Your task to perform on an android device: Go to sound settings Image 0: 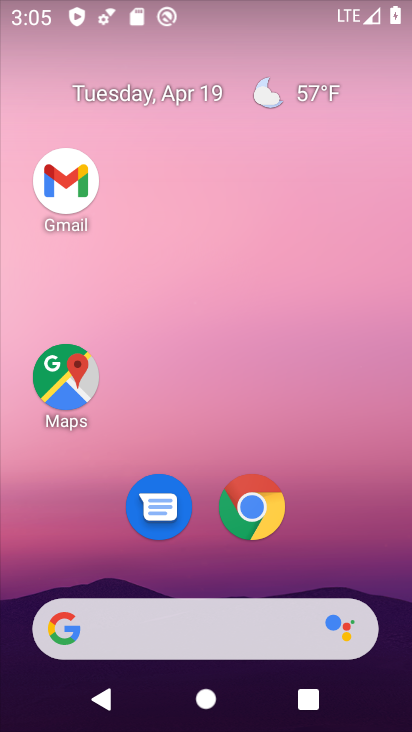
Step 0: drag from (228, 526) to (228, 130)
Your task to perform on an android device: Go to sound settings Image 1: 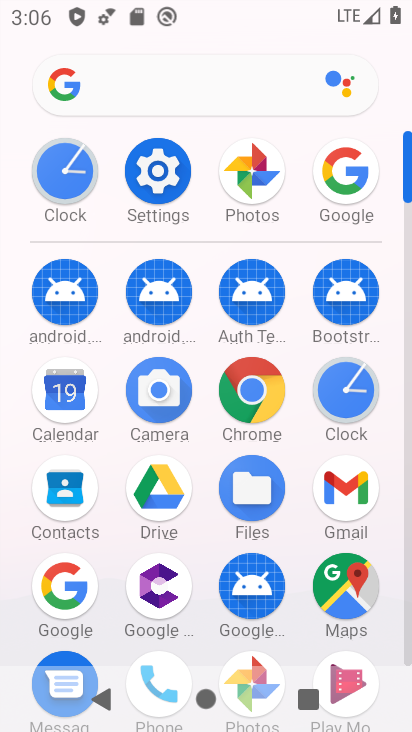
Step 1: click (146, 179)
Your task to perform on an android device: Go to sound settings Image 2: 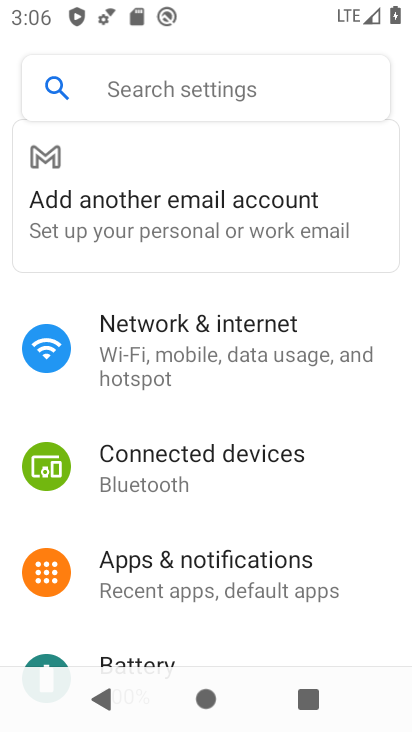
Step 2: drag from (206, 586) to (272, 252)
Your task to perform on an android device: Go to sound settings Image 3: 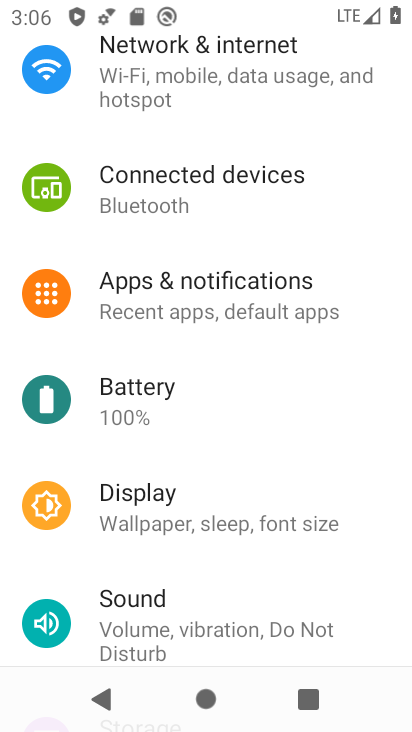
Step 3: click (203, 598)
Your task to perform on an android device: Go to sound settings Image 4: 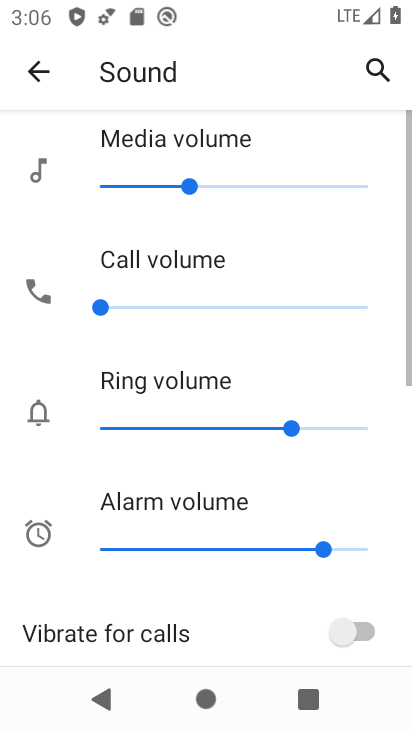
Step 4: task complete